Your task to perform on an android device: Open Google Maps and go to "Timeline" Image 0: 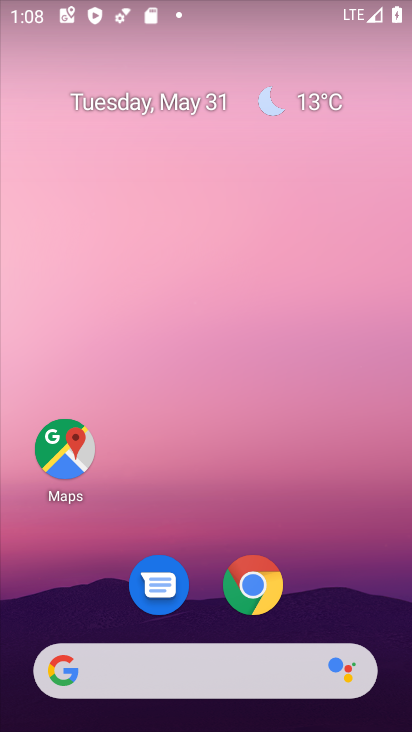
Step 0: click (68, 438)
Your task to perform on an android device: Open Google Maps and go to "Timeline" Image 1: 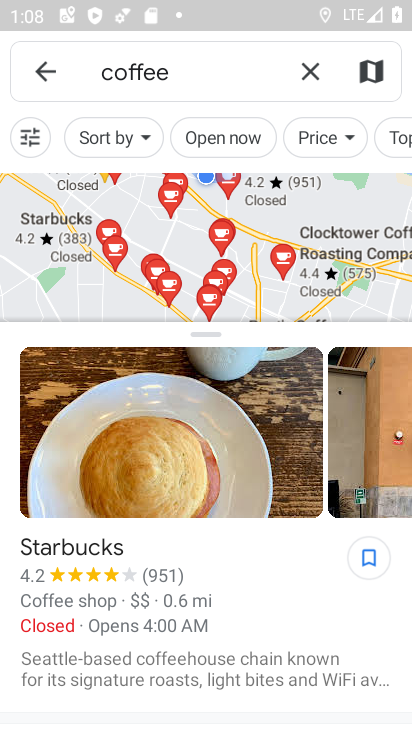
Step 1: click (39, 59)
Your task to perform on an android device: Open Google Maps and go to "Timeline" Image 2: 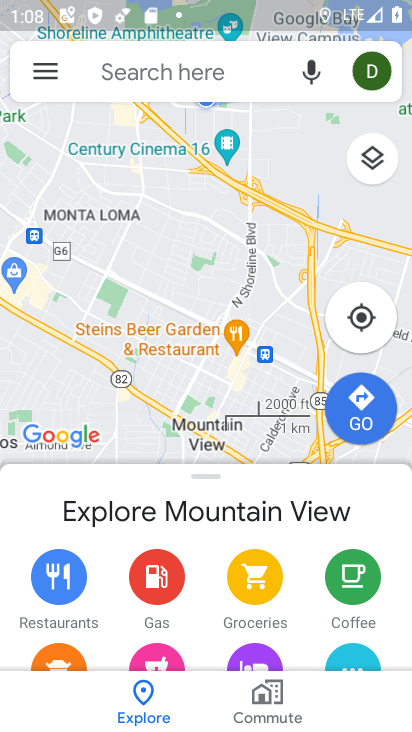
Step 2: click (39, 61)
Your task to perform on an android device: Open Google Maps and go to "Timeline" Image 3: 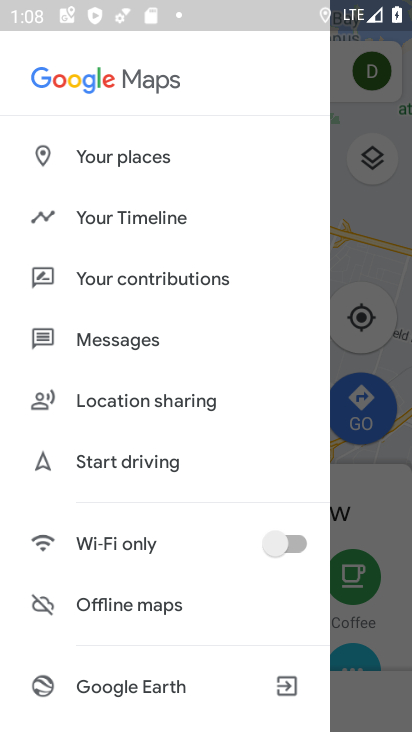
Step 3: click (119, 215)
Your task to perform on an android device: Open Google Maps and go to "Timeline" Image 4: 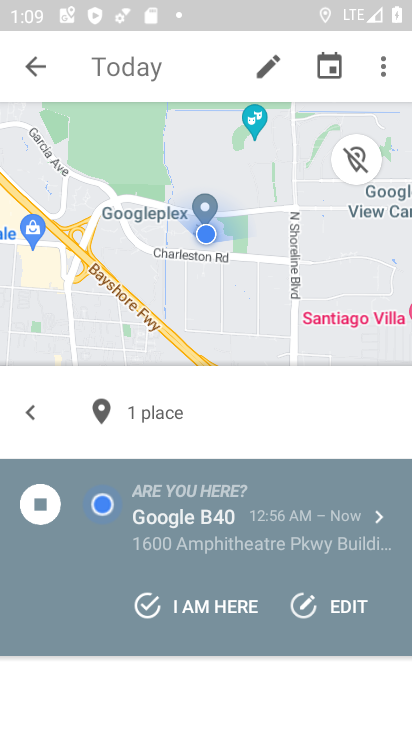
Step 4: task complete